Your task to perform on an android device: change notifications settings Image 0: 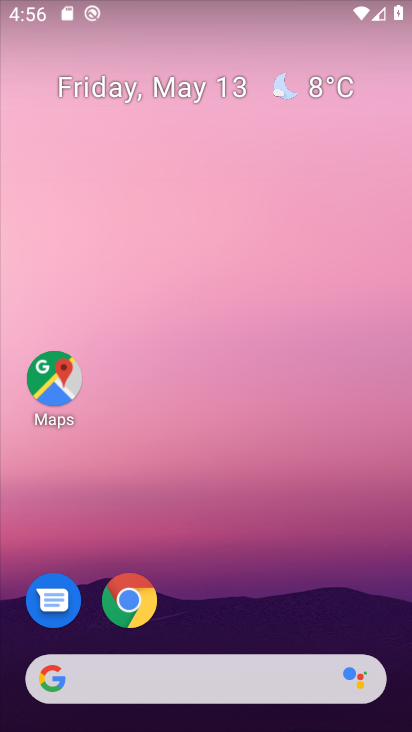
Step 0: drag from (343, 609) to (343, 112)
Your task to perform on an android device: change notifications settings Image 1: 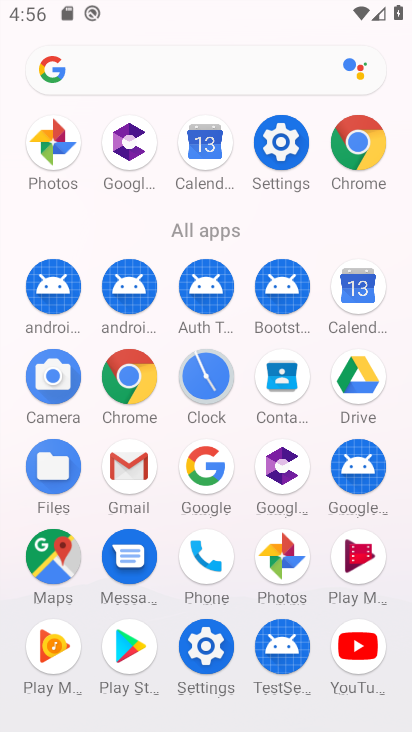
Step 1: click (292, 170)
Your task to perform on an android device: change notifications settings Image 2: 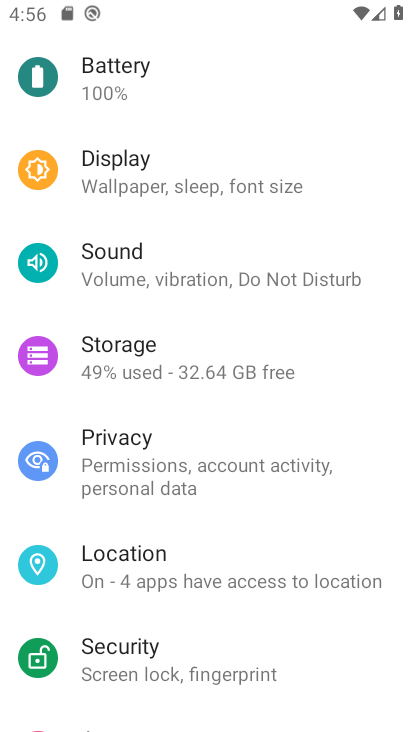
Step 2: drag from (271, 404) to (216, 539)
Your task to perform on an android device: change notifications settings Image 3: 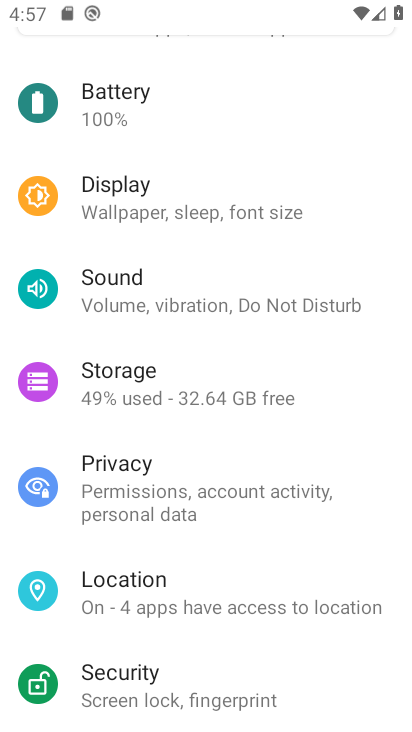
Step 3: drag from (236, 435) to (236, 573)
Your task to perform on an android device: change notifications settings Image 4: 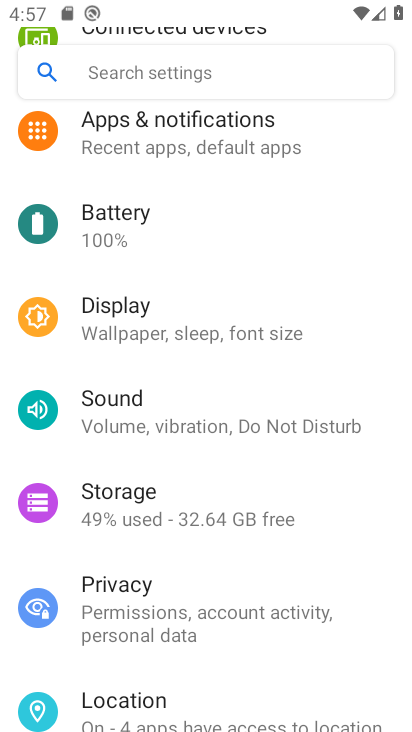
Step 4: drag from (249, 299) to (274, 554)
Your task to perform on an android device: change notifications settings Image 5: 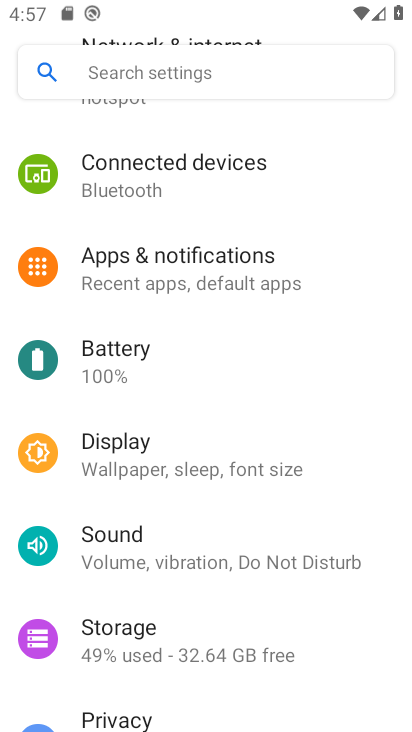
Step 5: click (279, 277)
Your task to perform on an android device: change notifications settings Image 6: 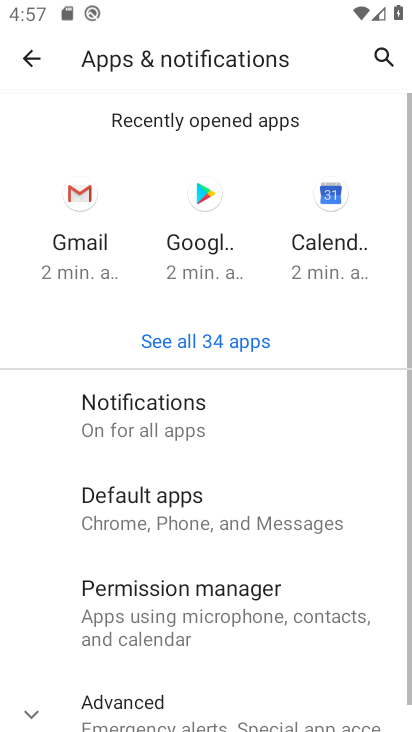
Step 6: click (291, 458)
Your task to perform on an android device: change notifications settings Image 7: 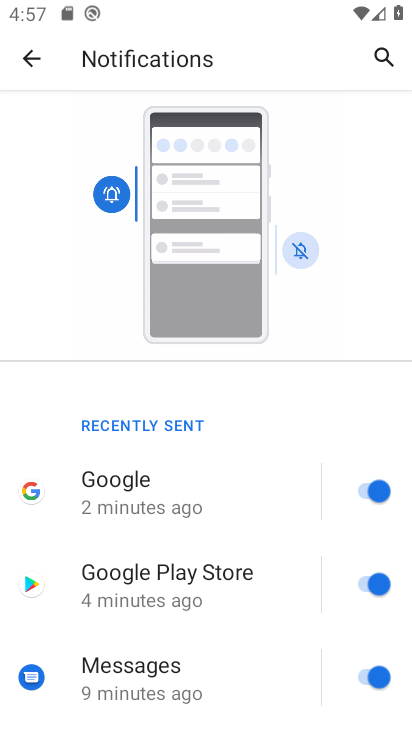
Step 7: click (368, 456)
Your task to perform on an android device: change notifications settings Image 8: 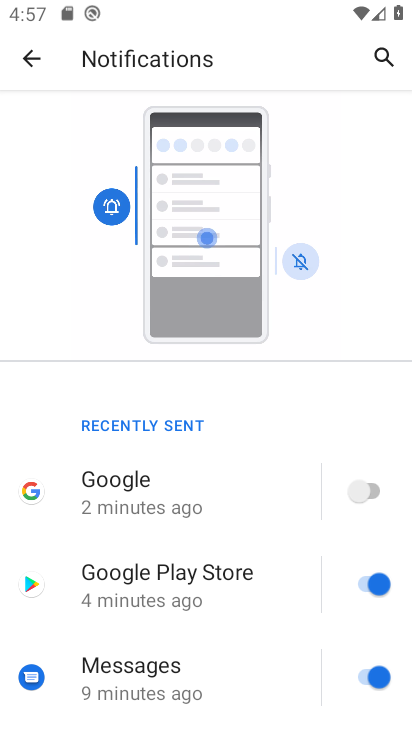
Step 8: task complete